Your task to perform on an android device: allow cookies in the chrome app Image 0: 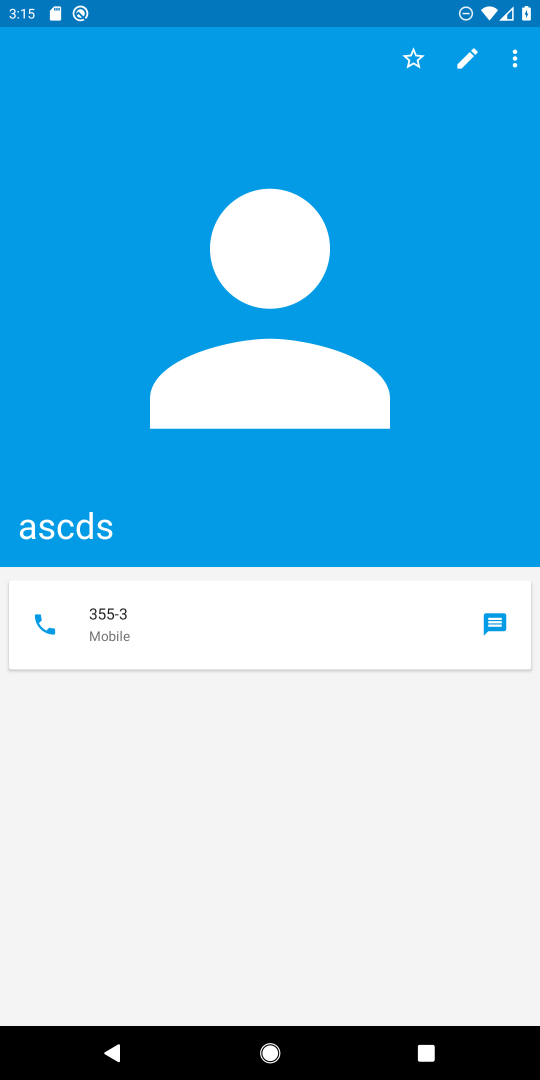
Step 0: task complete